Your task to perform on an android device: Open my contact list Image 0: 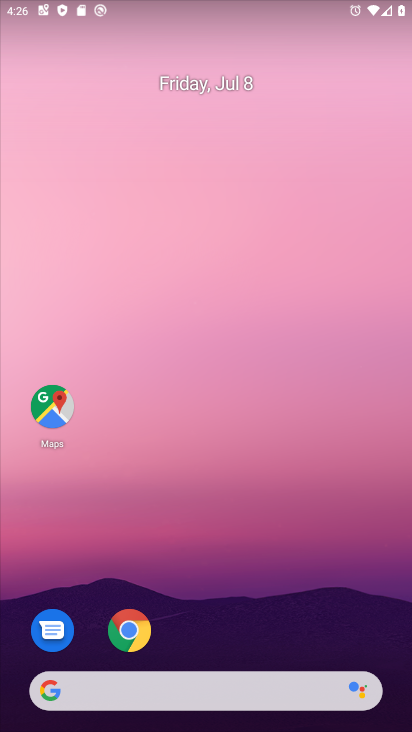
Step 0: drag from (254, 657) to (270, 70)
Your task to perform on an android device: Open my contact list Image 1: 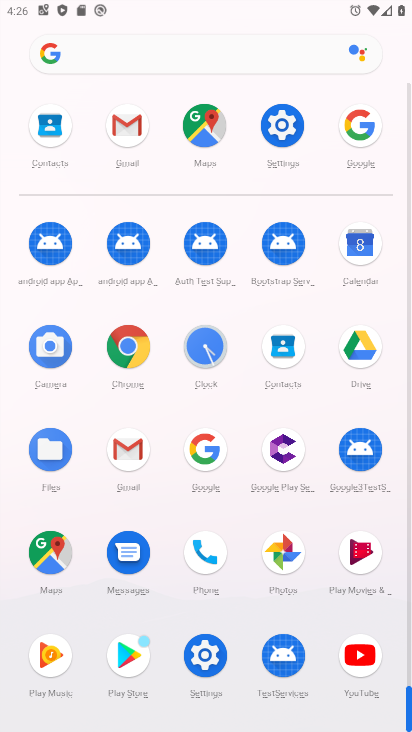
Step 1: click (284, 348)
Your task to perform on an android device: Open my contact list Image 2: 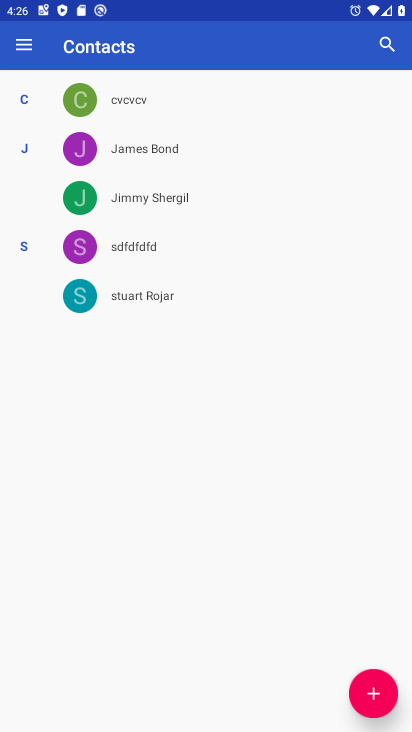
Step 2: task complete